Your task to perform on an android device: Open notification settings Image 0: 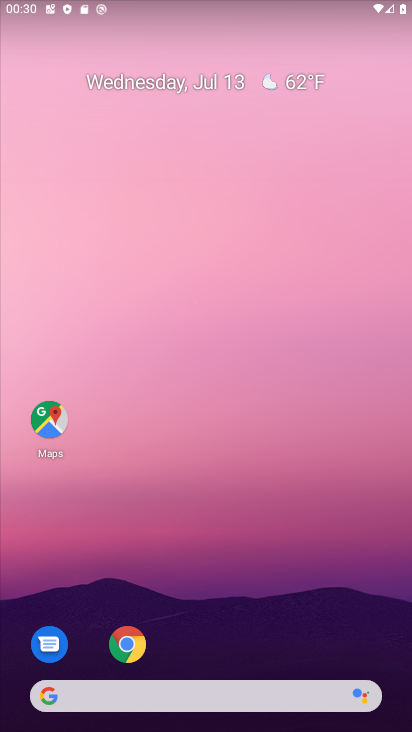
Step 0: drag from (209, 665) to (164, 68)
Your task to perform on an android device: Open notification settings Image 1: 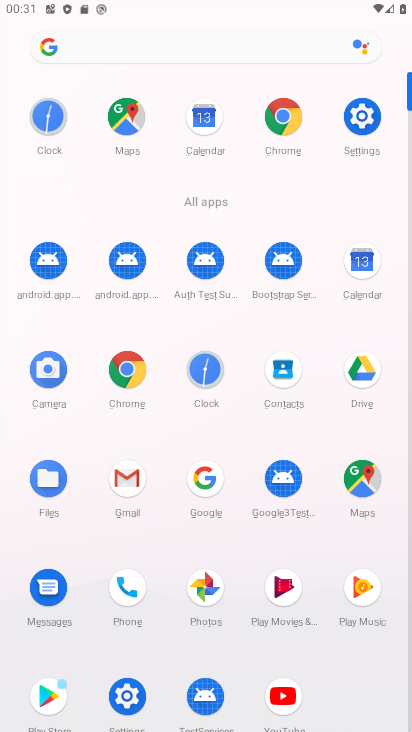
Step 1: click (143, 693)
Your task to perform on an android device: Open notification settings Image 2: 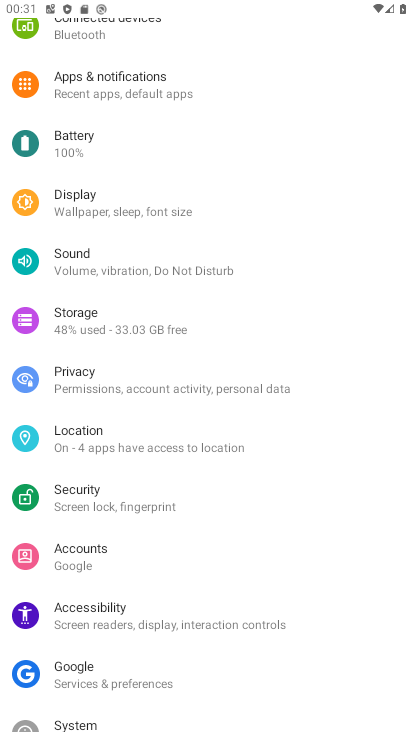
Step 2: click (106, 104)
Your task to perform on an android device: Open notification settings Image 3: 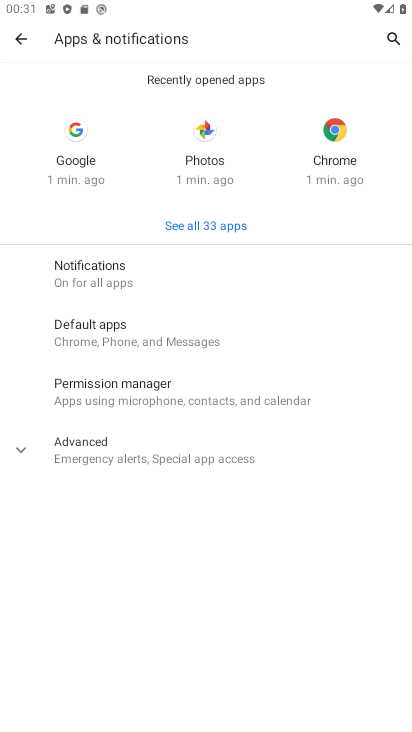
Step 3: click (171, 260)
Your task to perform on an android device: Open notification settings Image 4: 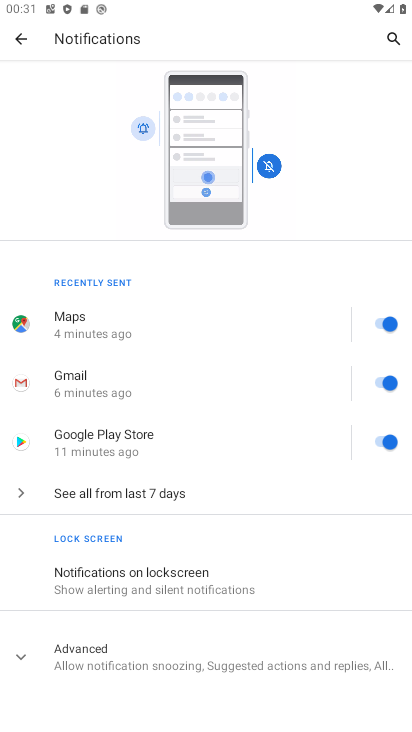
Step 4: task complete